Your task to perform on an android device: Show me productivity apps on the Play Store Image 0: 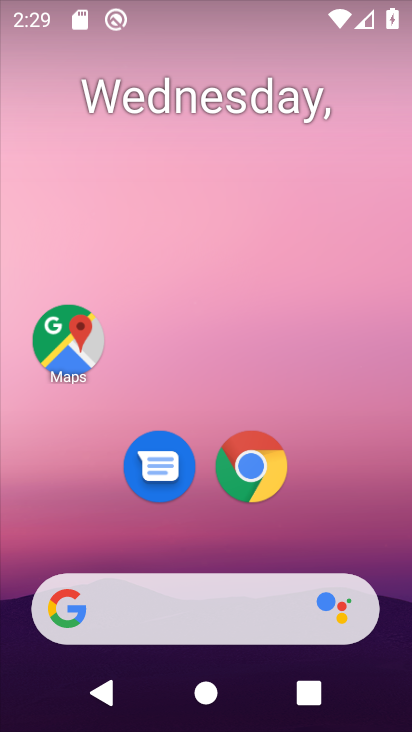
Step 0: drag from (402, 618) to (333, 118)
Your task to perform on an android device: Show me productivity apps on the Play Store Image 1: 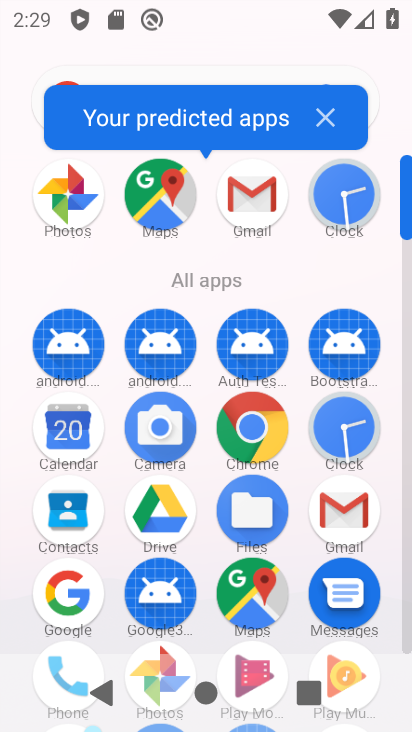
Step 1: click (408, 638)
Your task to perform on an android device: Show me productivity apps on the Play Store Image 2: 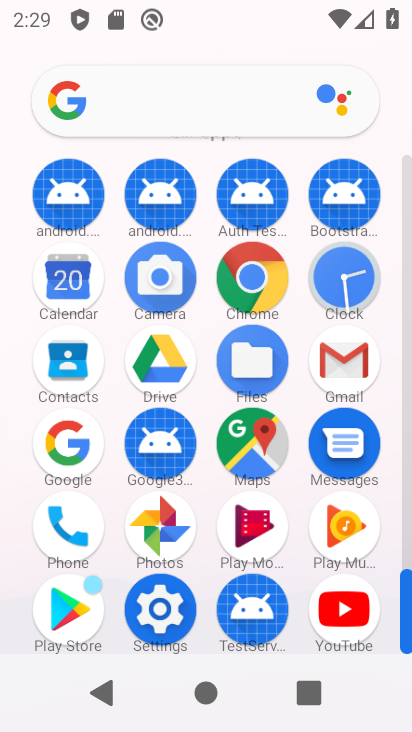
Step 2: click (67, 617)
Your task to perform on an android device: Show me productivity apps on the Play Store Image 3: 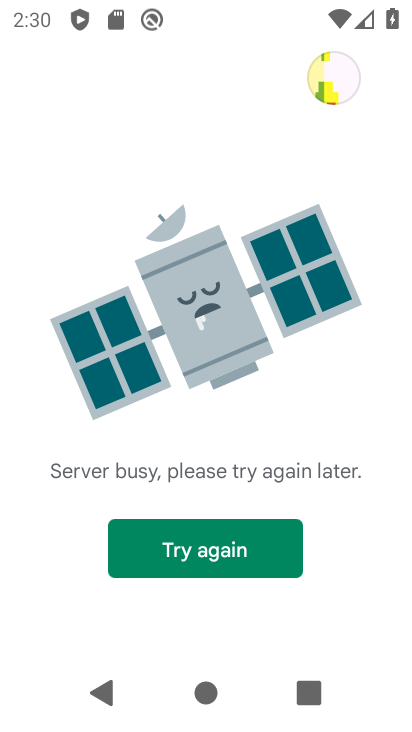
Step 3: task complete